Your task to perform on an android device: check out phone information Image 0: 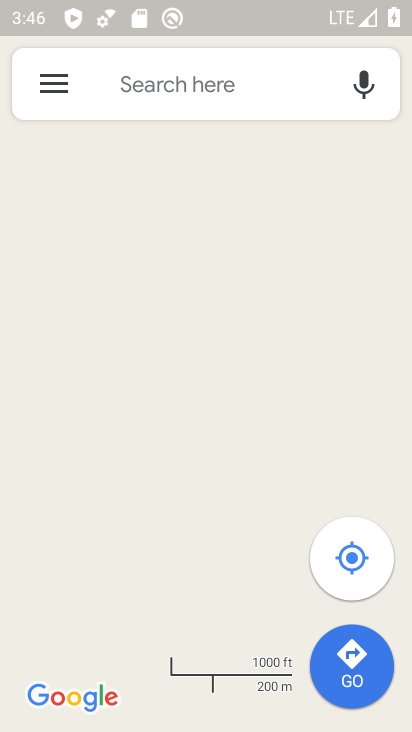
Step 0: click (109, 458)
Your task to perform on an android device: check out phone information Image 1: 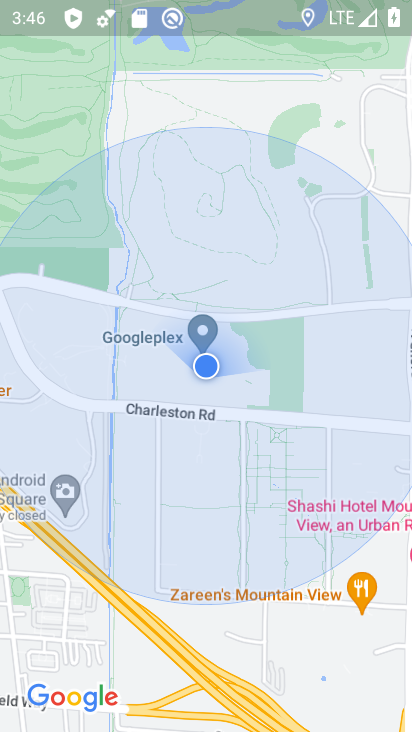
Step 1: press home button
Your task to perform on an android device: check out phone information Image 2: 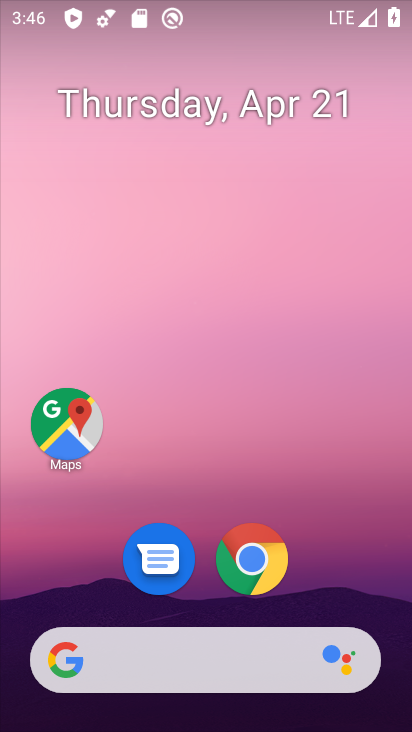
Step 2: drag from (149, 622) to (189, 309)
Your task to perform on an android device: check out phone information Image 3: 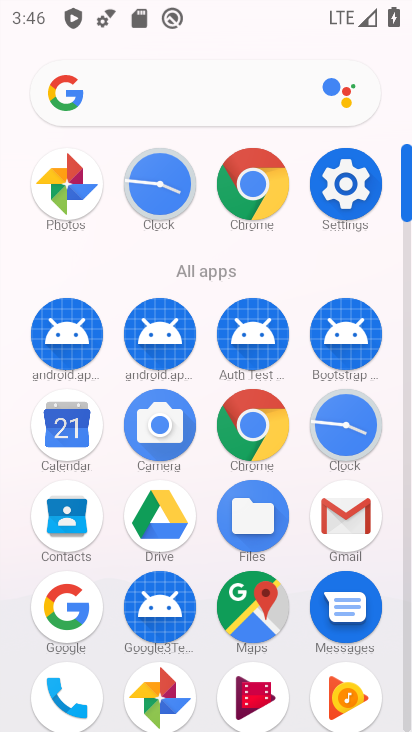
Step 3: click (77, 694)
Your task to perform on an android device: check out phone information Image 4: 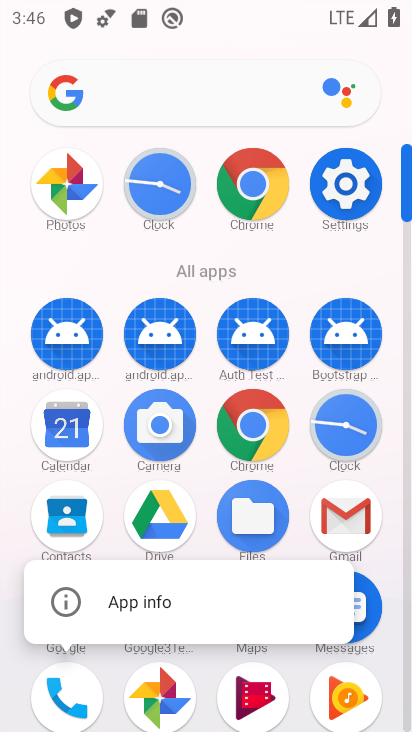
Step 4: click (137, 606)
Your task to perform on an android device: check out phone information Image 5: 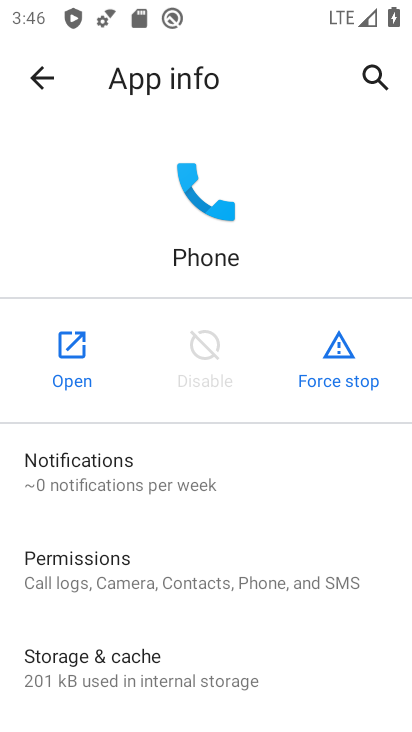
Step 5: drag from (158, 675) to (206, 346)
Your task to perform on an android device: check out phone information Image 6: 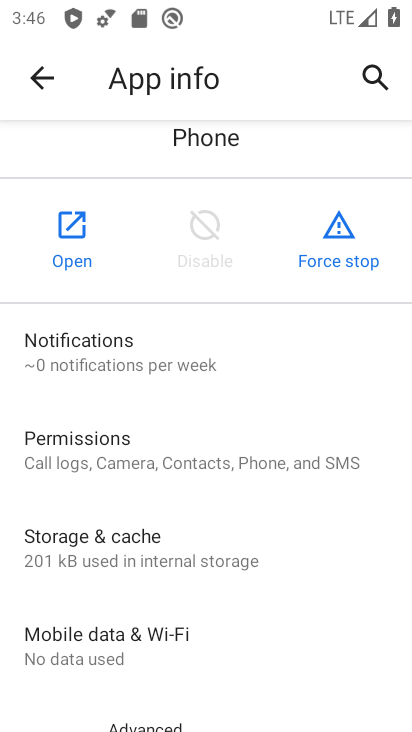
Step 6: drag from (211, 667) to (253, 236)
Your task to perform on an android device: check out phone information Image 7: 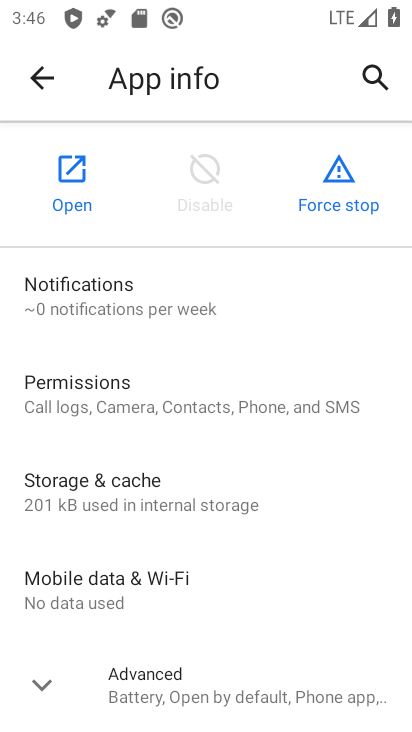
Step 7: click (194, 698)
Your task to perform on an android device: check out phone information Image 8: 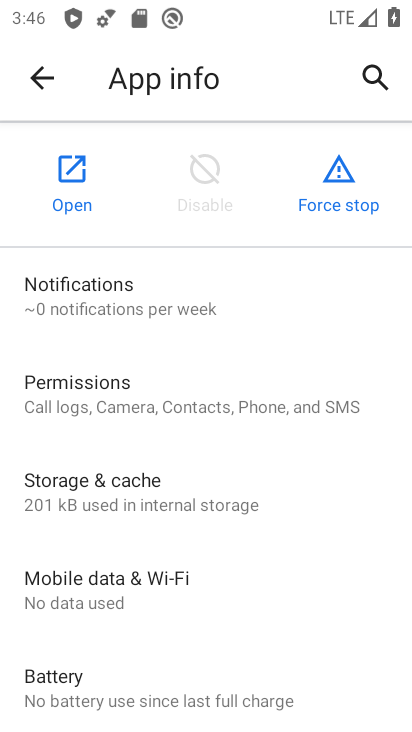
Step 8: task complete